Your task to perform on an android device: turn off notifications settings in the gmail app Image 0: 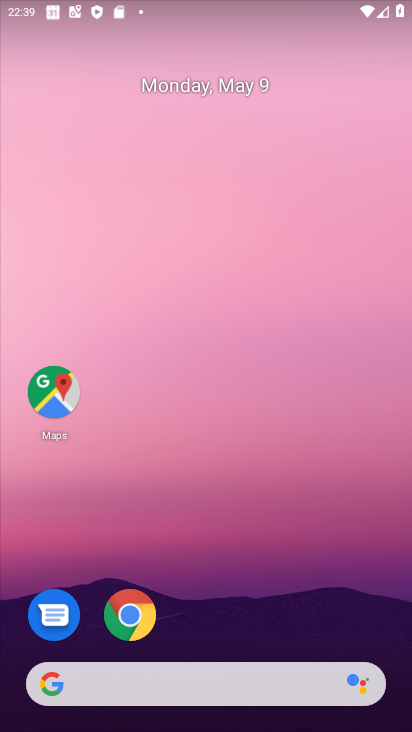
Step 0: click (218, 291)
Your task to perform on an android device: turn off notifications settings in the gmail app Image 1: 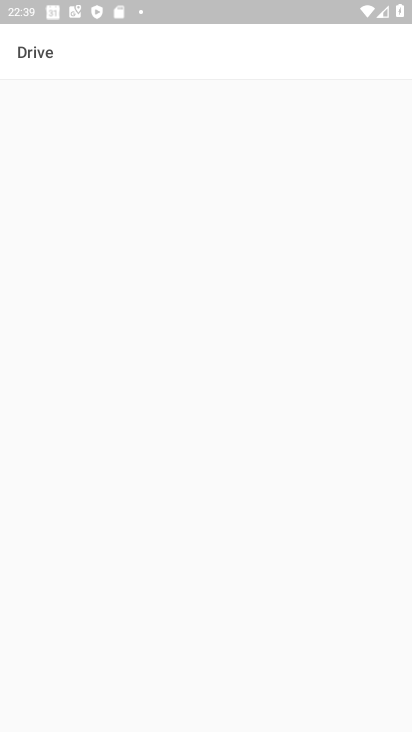
Step 1: press home button
Your task to perform on an android device: turn off notifications settings in the gmail app Image 2: 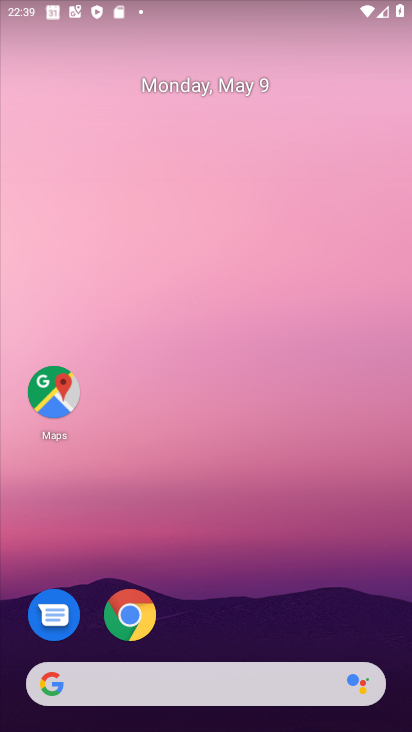
Step 2: drag from (192, 638) to (199, 273)
Your task to perform on an android device: turn off notifications settings in the gmail app Image 3: 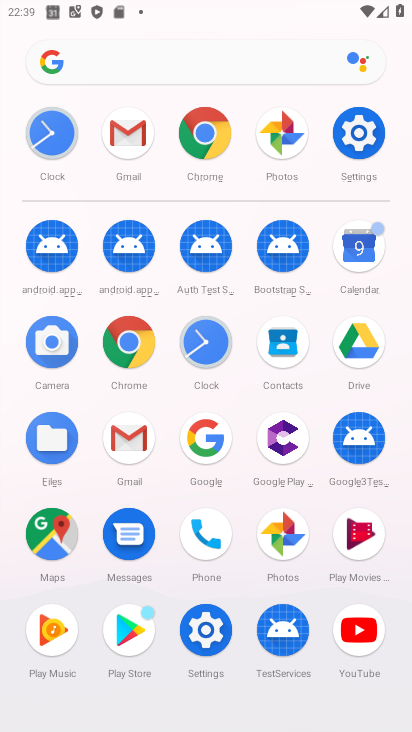
Step 3: click (129, 152)
Your task to perform on an android device: turn off notifications settings in the gmail app Image 4: 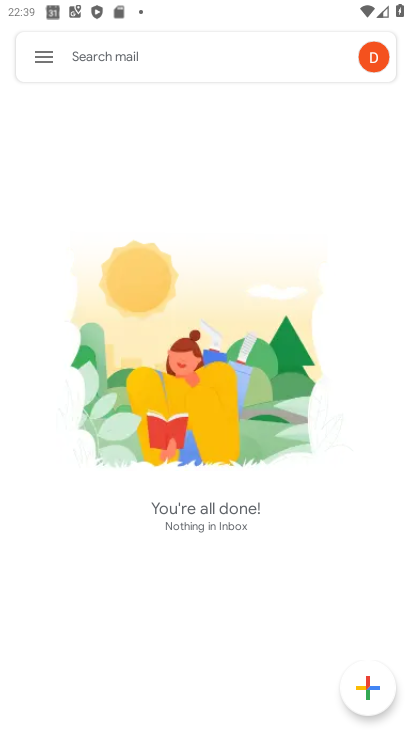
Step 4: click (43, 58)
Your task to perform on an android device: turn off notifications settings in the gmail app Image 5: 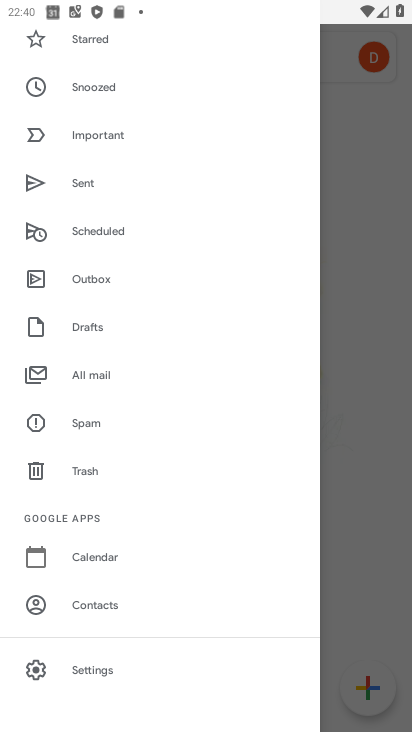
Step 5: drag from (138, 520) to (170, 396)
Your task to perform on an android device: turn off notifications settings in the gmail app Image 6: 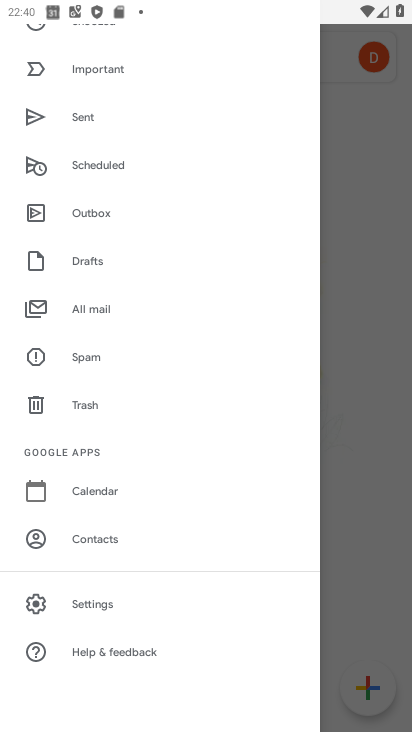
Step 6: click (83, 598)
Your task to perform on an android device: turn off notifications settings in the gmail app Image 7: 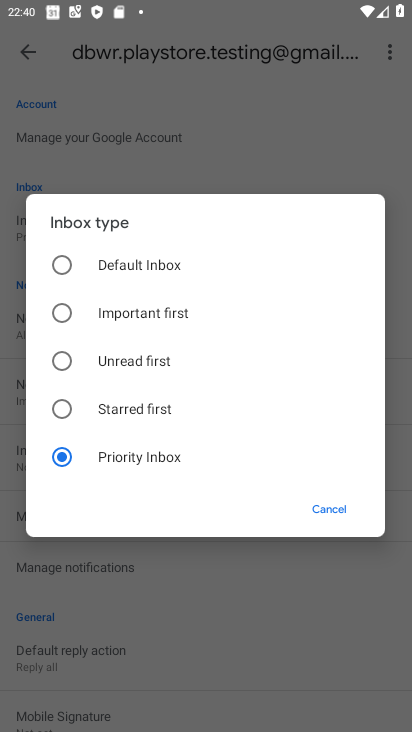
Step 7: click (336, 515)
Your task to perform on an android device: turn off notifications settings in the gmail app Image 8: 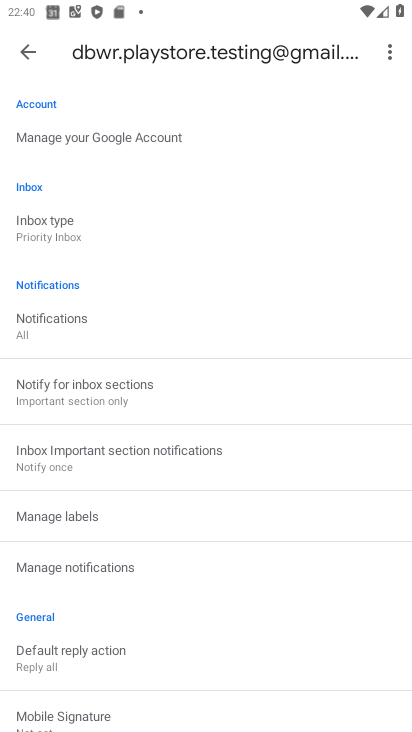
Step 8: click (75, 324)
Your task to perform on an android device: turn off notifications settings in the gmail app Image 9: 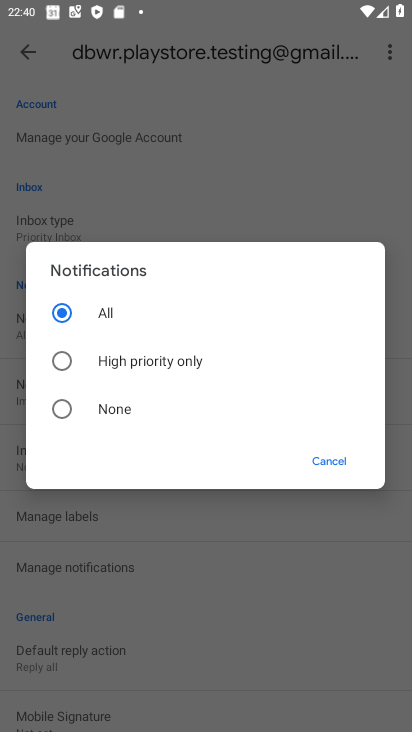
Step 9: click (97, 403)
Your task to perform on an android device: turn off notifications settings in the gmail app Image 10: 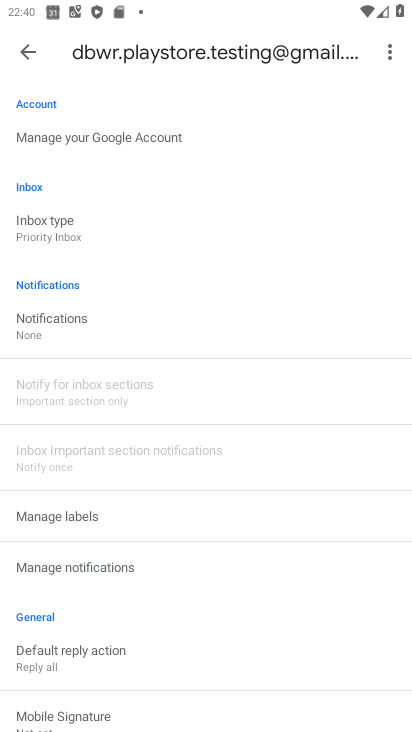
Step 10: task complete